Your task to perform on an android device: Search for sushi restaurants on Maps Image 0: 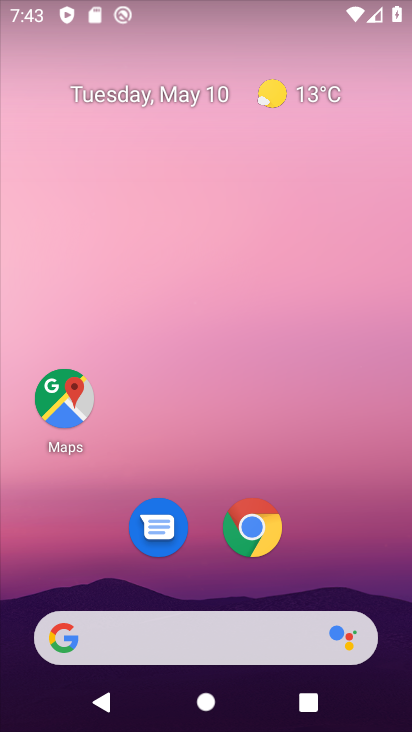
Step 0: click (75, 403)
Your task to perform on an android device: Search for sushi restaurants on Maps Image 1: 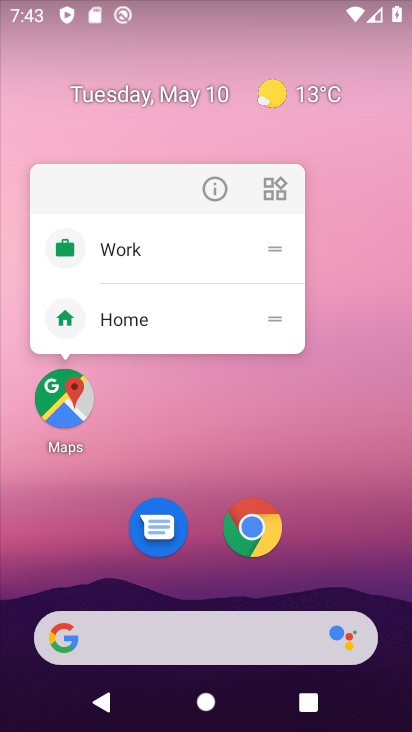
Step 1: click (51, 400)
Your task to perform on an android device: Search for sushi restaurants on Maps Image 2: 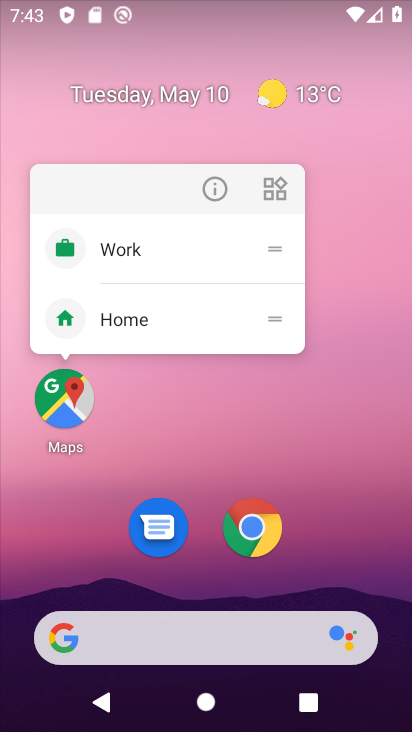
Step 2: click (68, 380)
Your task to perform on an android device: Search for sushi restaurants on Maps Image 3: 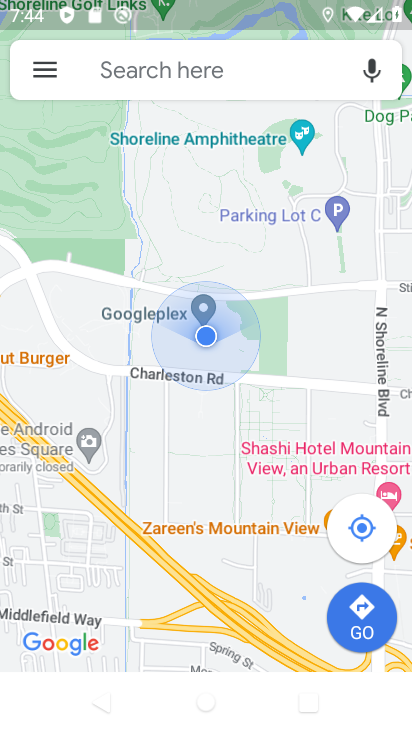
Step 3: click (207, 68)
Your task to perform on an android device: Search for sushi restaurants on Maps Image 4: 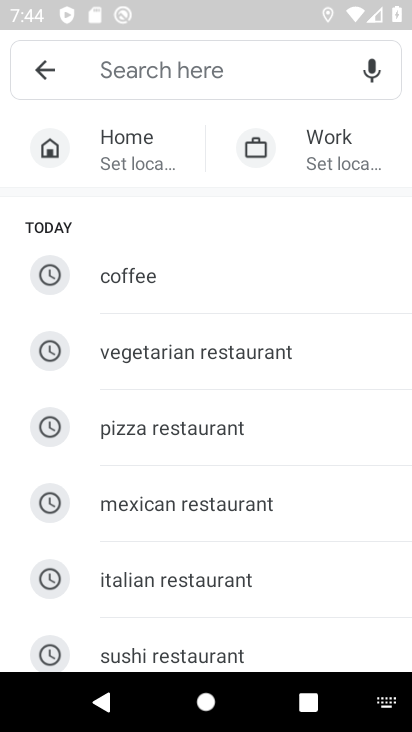
Step 4: click (163, 663)
Your task to perform on an android device: Search for sushi restaurants on Maps Image 5: 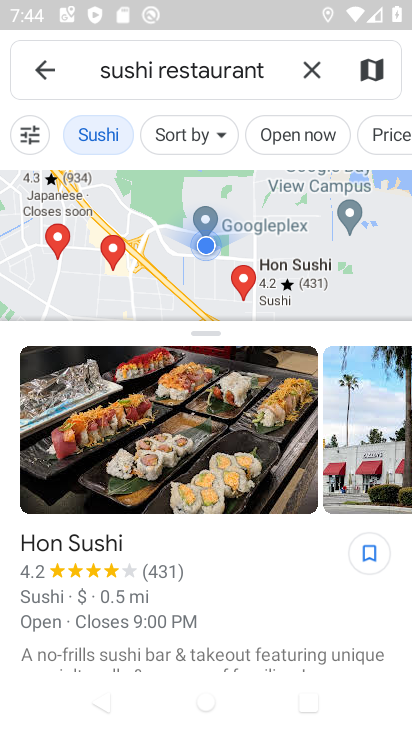
Step 5: task complete